Your task to perform on an android device: Go to Maps Image 0: 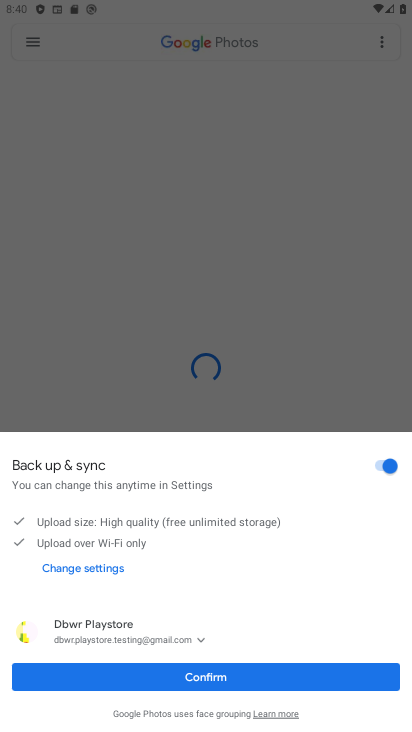
Step 0: press home button
Your task to perform on an android device: Go to Maps Image 1: 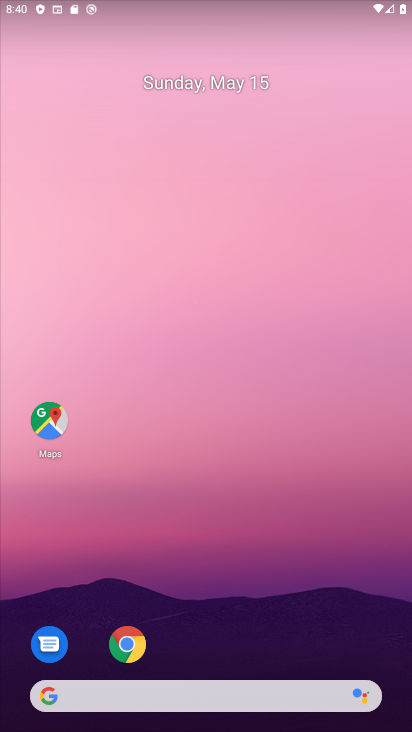
Step 1: click (56, 427)
Your task to perform on an android device: Go to Maps Image 2: 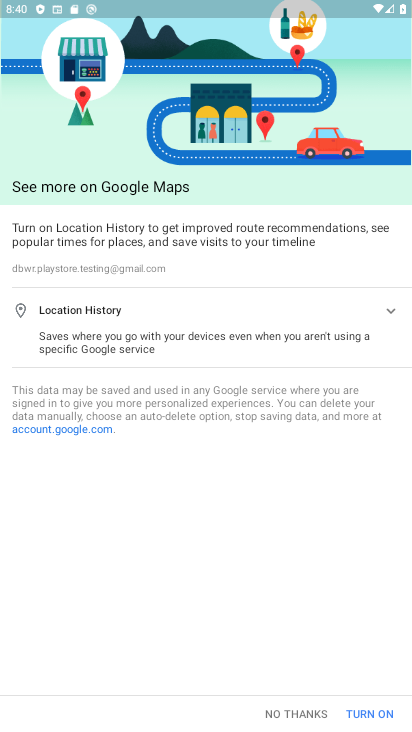
Step 2: click (371, 705)
Your task to perform on an android device: Go to Maps Image 3: 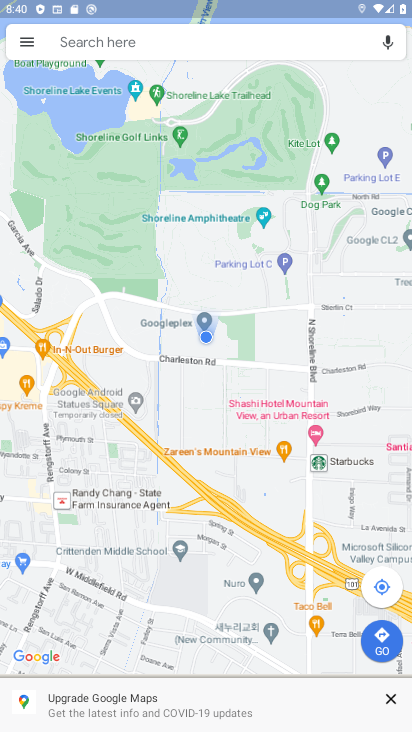
Step 3: task complete